Your task to perform on an android device: see tabs open on other devices in the chrome app Image 0: 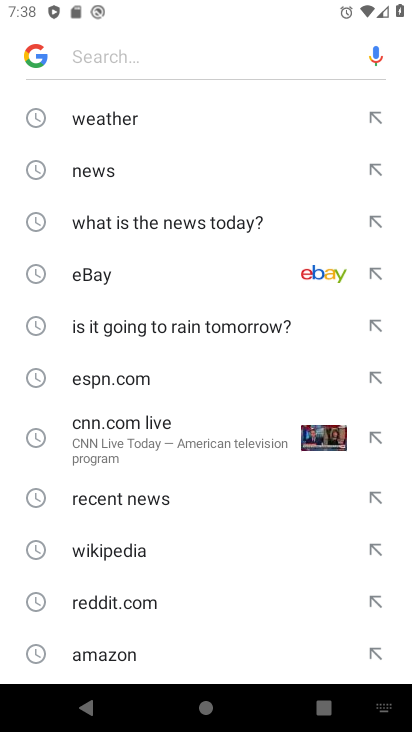
Step 0: press home button
Your task to perform on an android device: see tabs open on other devices in the chrome app Image 1: 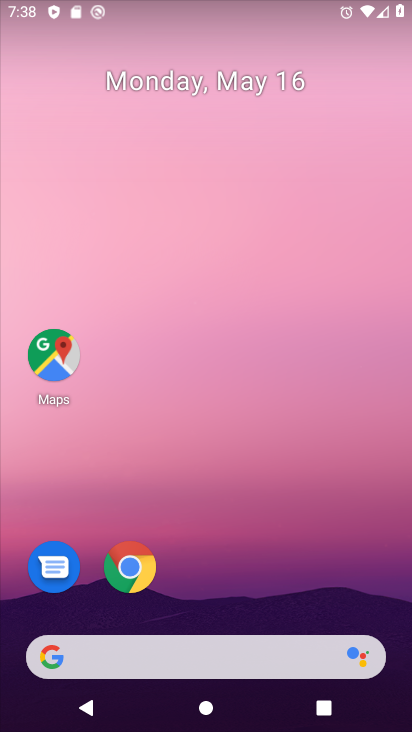
Step 1: drag from (149, 406) to (171, 304)
Your task to perform on an android device: see tabs open on other devices in the chrome app Image 2: 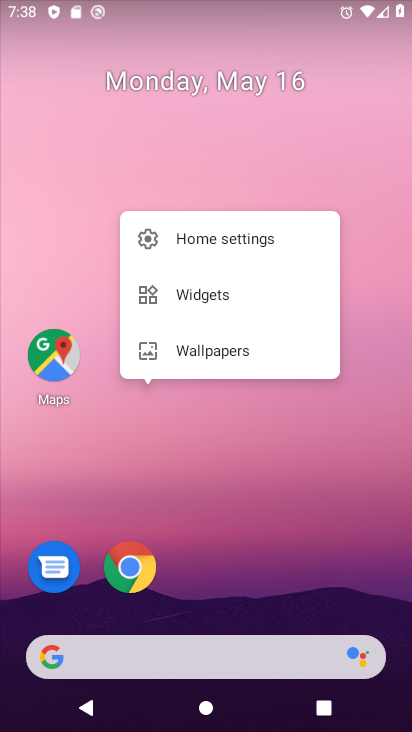
Step 2: click (131, 567)
Your task to perform on an android device: see tabs open on other devices in the chrome app Image 3: 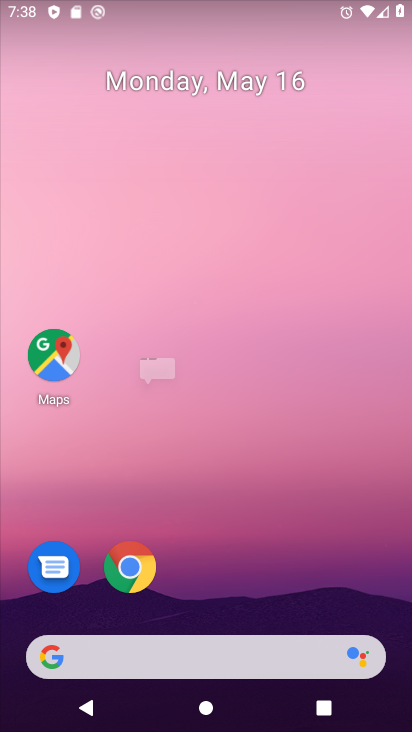
Step 3: click (76, 186)
Your task to perform on an android device: see tabs open on other devices in the chrome app Image 4: 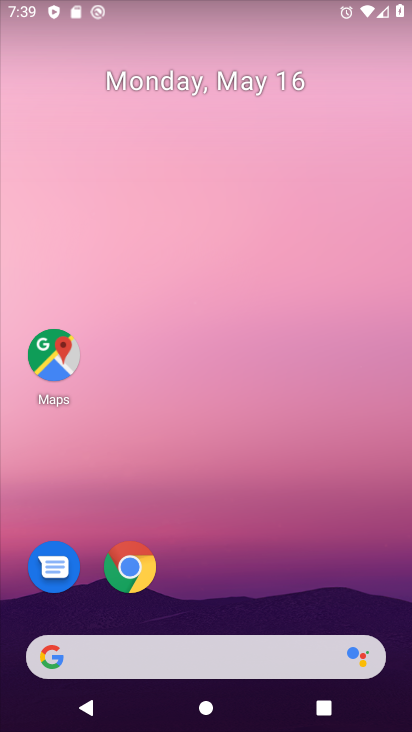
Step 4: click (132, 571)
Your task to perform on an android device: see tabs open on other devices in the chrome app Image 5: 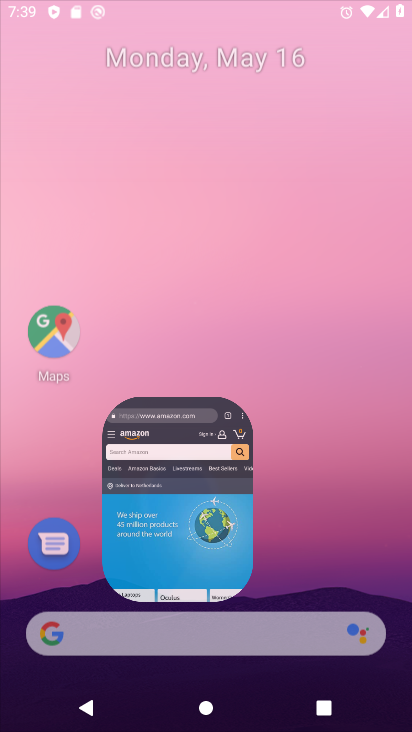
Step 5: click (133, 571)
Your task to perform on an android device: see tabs open on other devices in the chrome app Image 6: 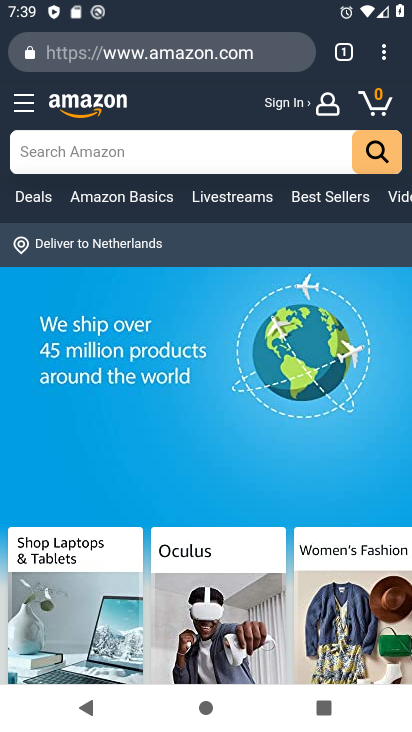
Step 6: click (349, 52)
Your task to perform on an android device: see tabs open on other devices in the chrome app Image 7: 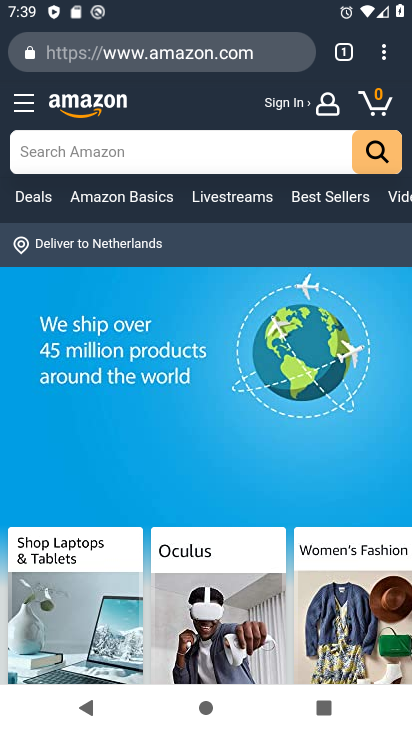
Step 7: click (353, 54)
Your task to perform on an android device: see tabs open on other devices in the chrome app Image 8: 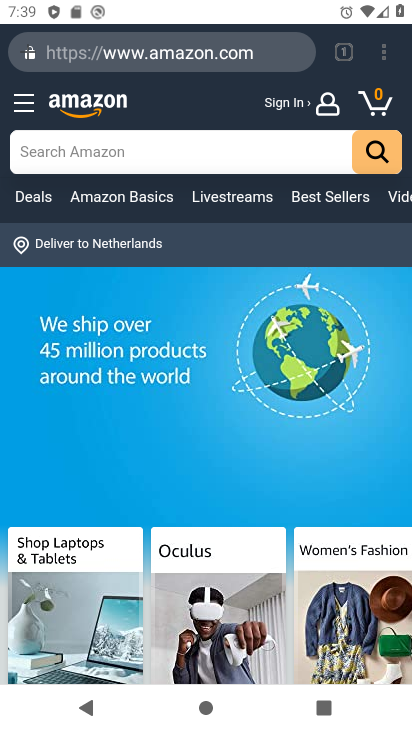
Step 8: task complete